Your task to perform on an android device: toggle location history Image 0: 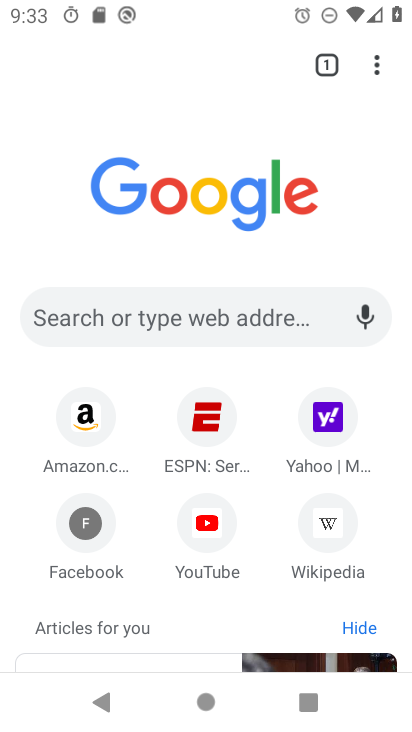
Step 0: press home button
Your task to perform on an android device: toggle location history Image 1: 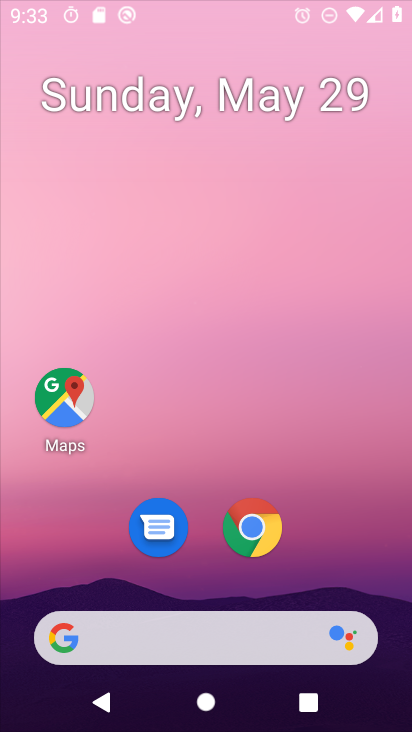
Step 1: drag from (377, 636) to (294, 29)
Your task to perform on an android device: toggle location history Image 2: 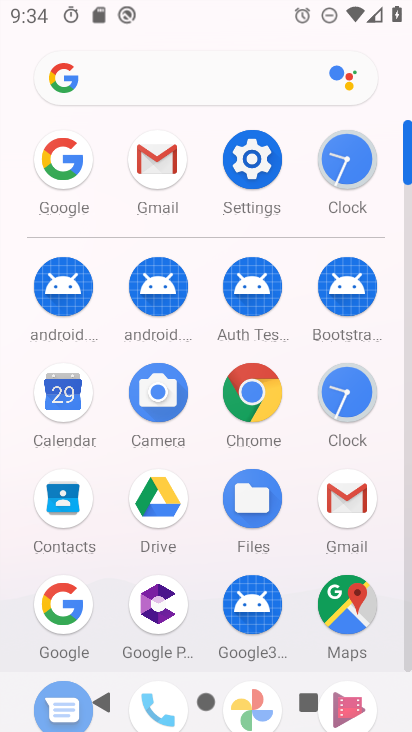
Step 2: click (263, 162)
Your task to perform on an android device: toggle location history Image 3: 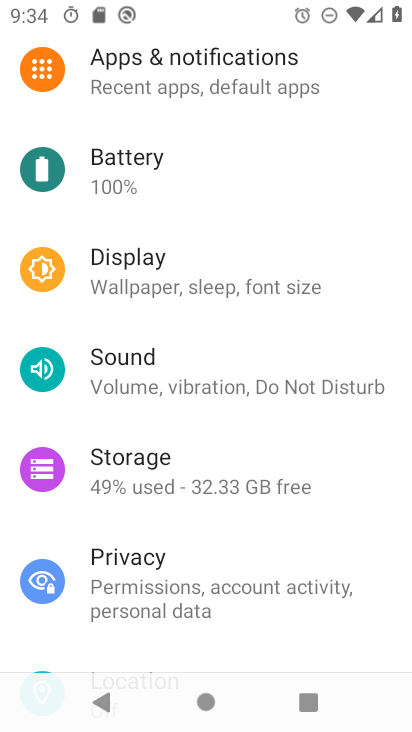
Step 3: drag from (132, 583) to (175, 167)
Your task to perform on an android device: toggle location history Image 4: 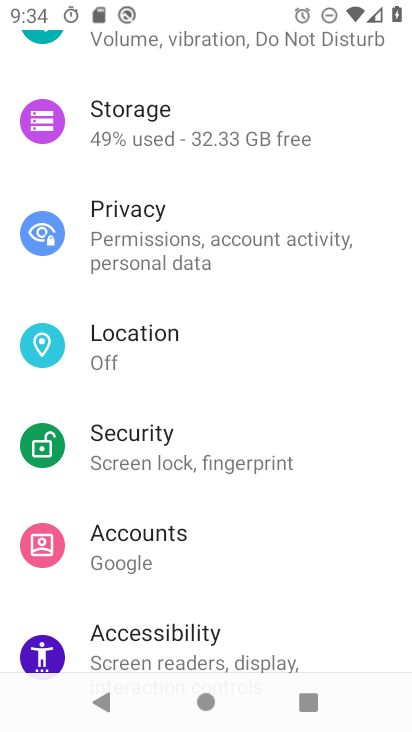
Step 4: click (162, 331)
Your task to perform on an android device: toggle location history Image 5: 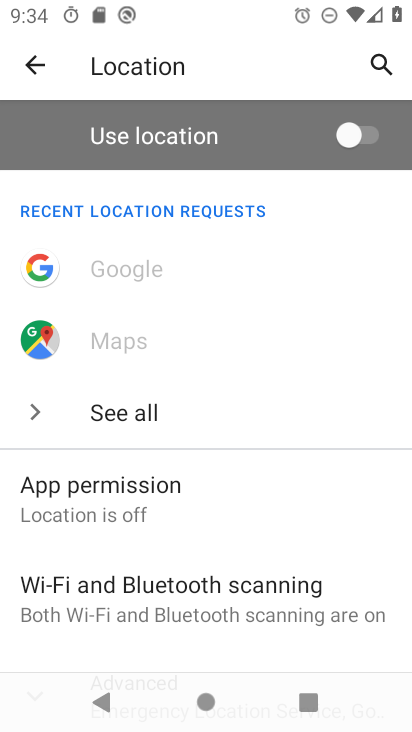
Step 5: drag from (159, 590) to (206, 250)
Your task to perform on an android device: toggle location history Image 6: 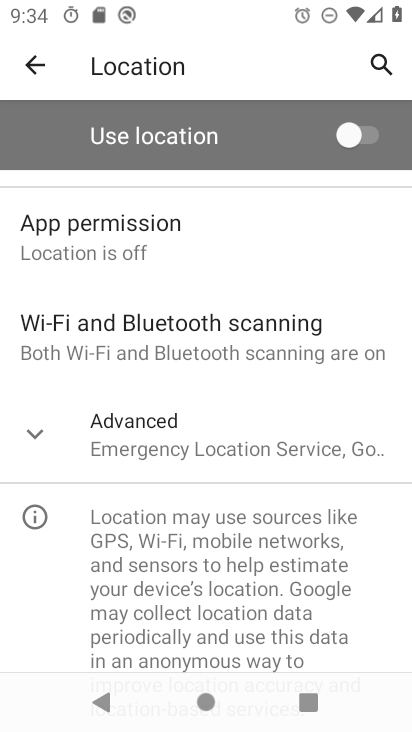
Step 6: click (168, 418)
Your task to perform on an android device: toggle location history Image 7: 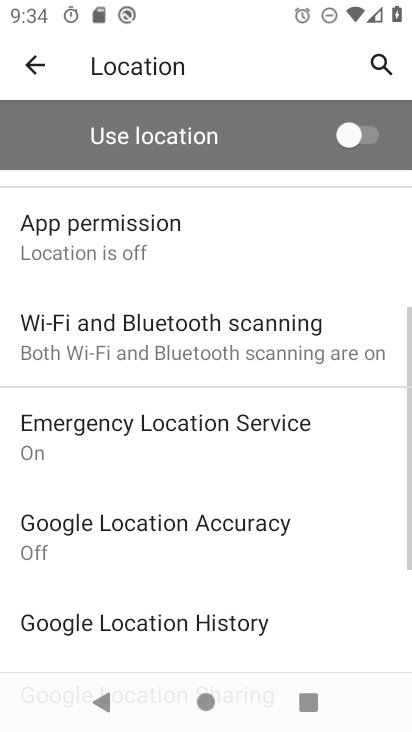
Step 7: click (174, 623)
Your task to perform on an android device: toggle location history Image 8: 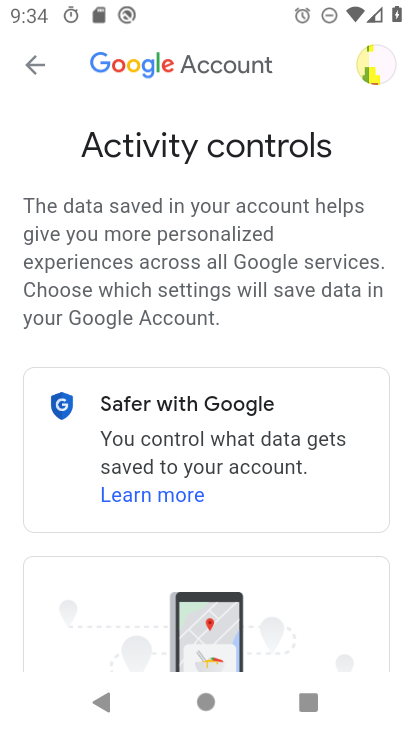
Step 8: drag from (350, 595) to (293, 50)
Your task to perform on an android device: toggle location history Image 9: 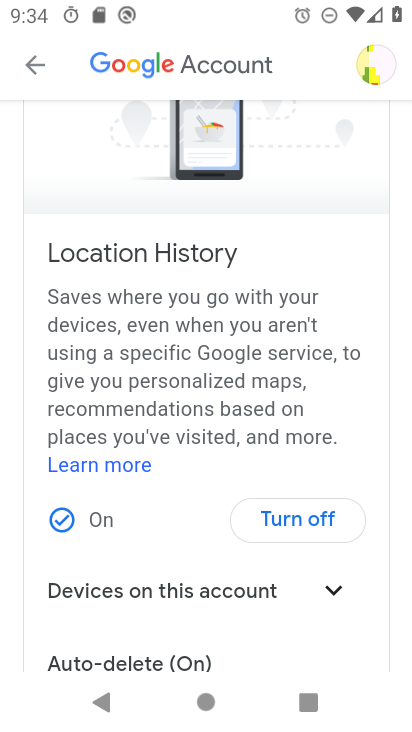
Step 9: click (306, 504)
Your task to perform on an android device: toggle location history Image 10: 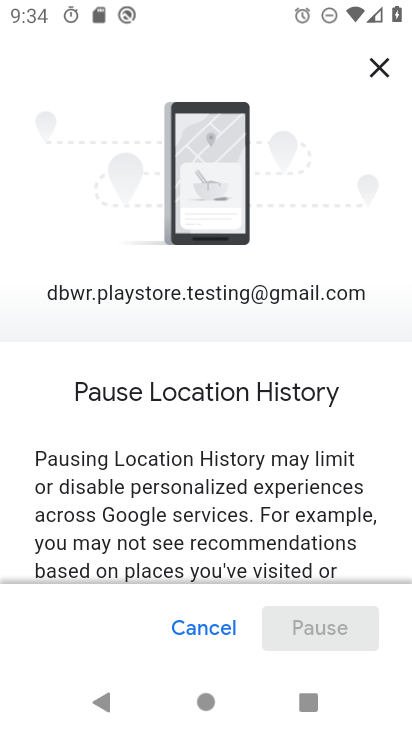
Step 10: task complete